Your task to perform on an android device: toggle notification dots Image 0: 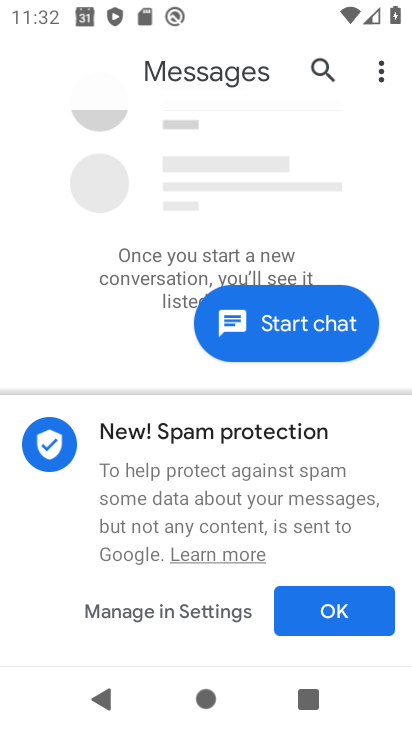
Step 0: press home button
Your task to perform on an android device: toggle notification dots Image 1: 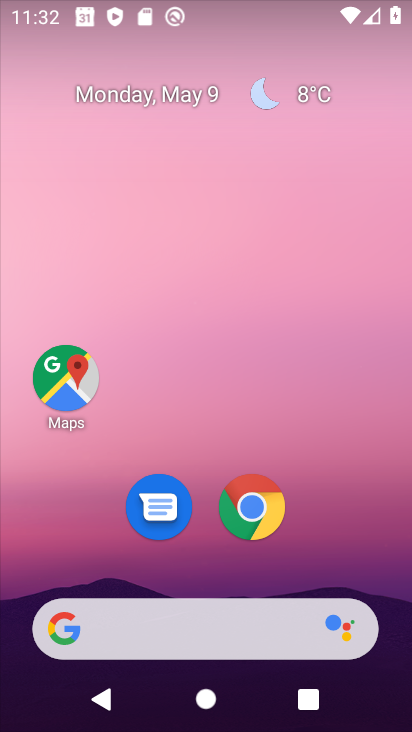
Step 1: drag from (300, 569) to (279, 53)
Your task to perform on an android device: toggle notification dots Image 2: 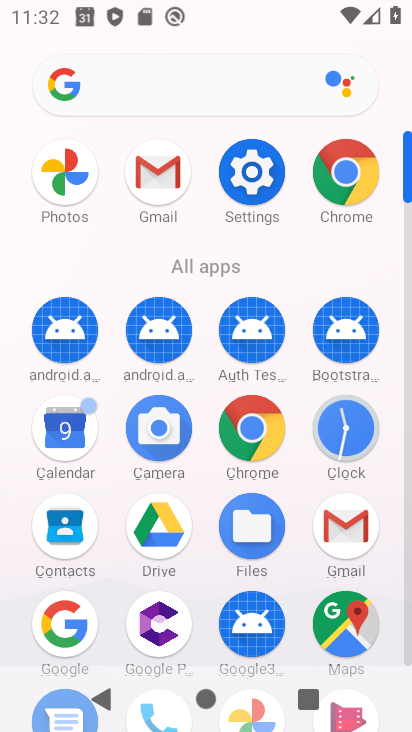
Step 2: click (250, 179)
Your task to perform on an android device: toggle notification dots Image 3: 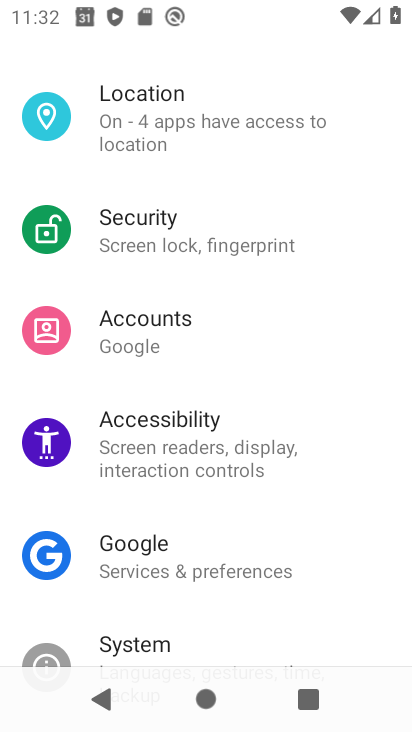
Step 3: drag from (291, 208) to (255, 573)
Your task to perform on an android device: toggle notification dots Image 4: 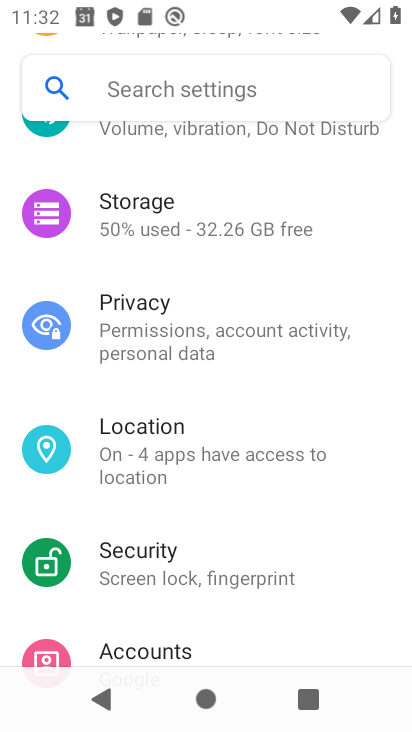
Step 4: drag from (212, 254) to (184, 578)
Your task to perform on an android device: toggle notification dots Image 5: 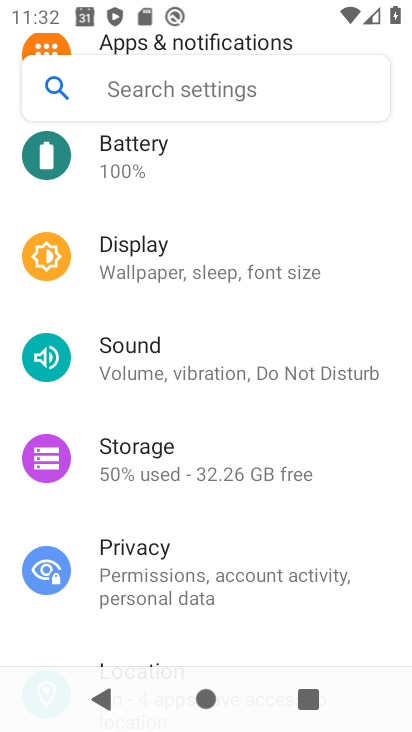
Step 5: drag from (198, 249) to (193, 509)
Your task to perform on an android device: toggle notification dots Image 6: 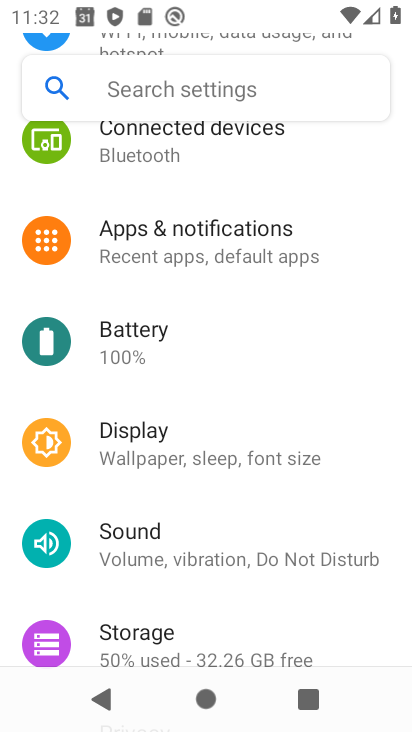
Step 6: click (156, 244)
Your task to perform on an android device: toggle notification dots Image 7: 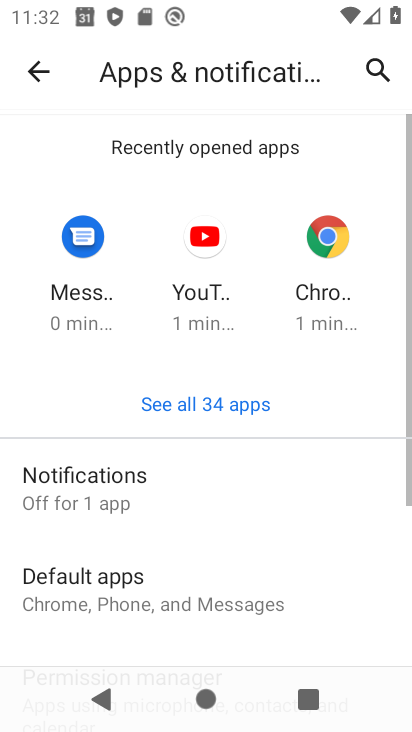
Step 7: drag from (322, 620) to (308, 321)
Your task to perform on an android device: toggle notification dots Image 8: 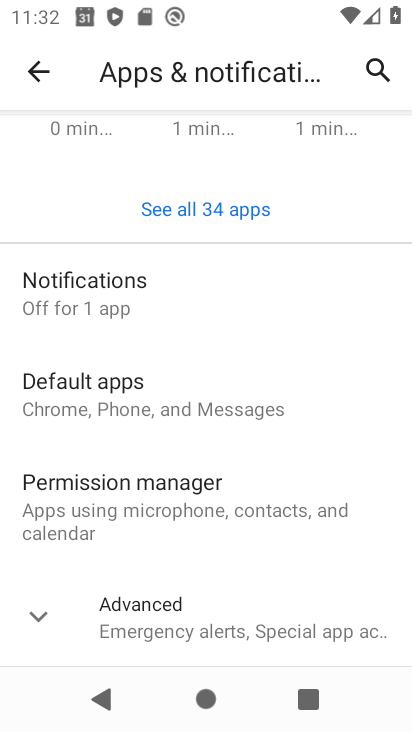
Step 8: click (98, 283)
Your task to perform on an android device: toggle notification dots Image 9: 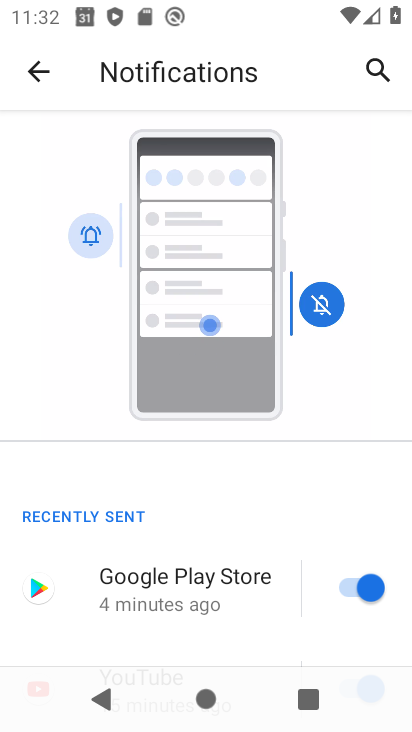
Step 9: drag from (231, 574) to (232, 231)
Your task to perform on an android device: toggle notification dots Image 10: 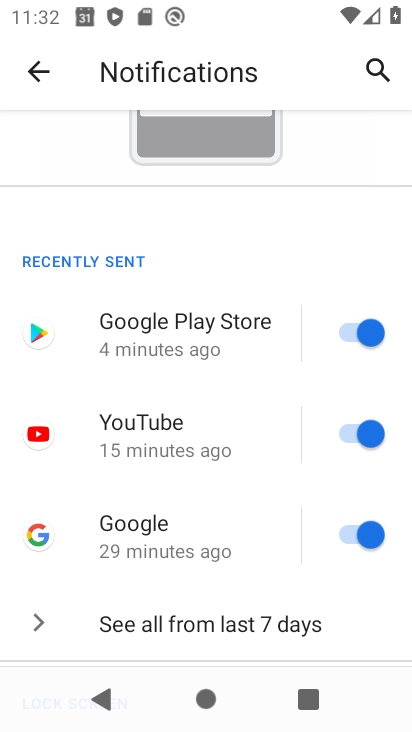
Step 10: drag from (204, 426) to (225, 187)
Your task to perform on an android device: toggle notification dots Image 11: 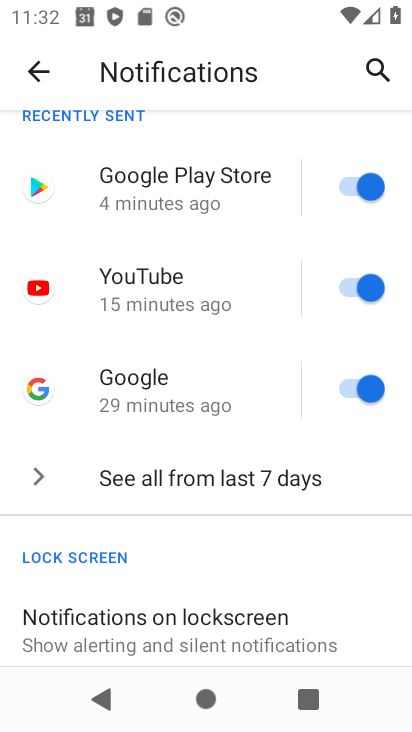
Step 11: drag from (216, 566) to (206, 251)
Your task to perform on an android device: toggle notification dots Image 12: 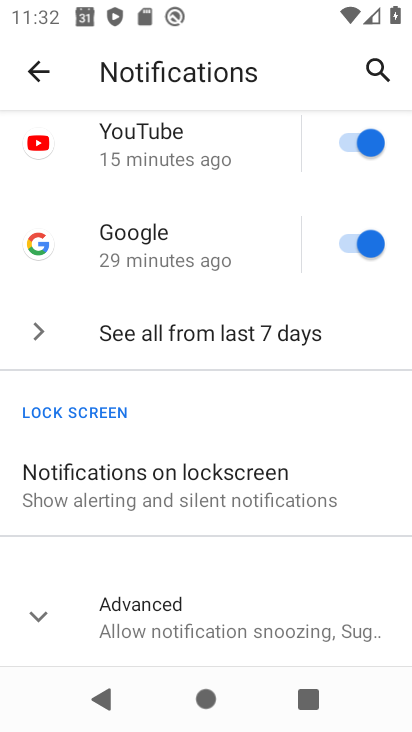
Step 12: click (180, 600)
Your task to perform on an android device: toggle notification dots Image 13: 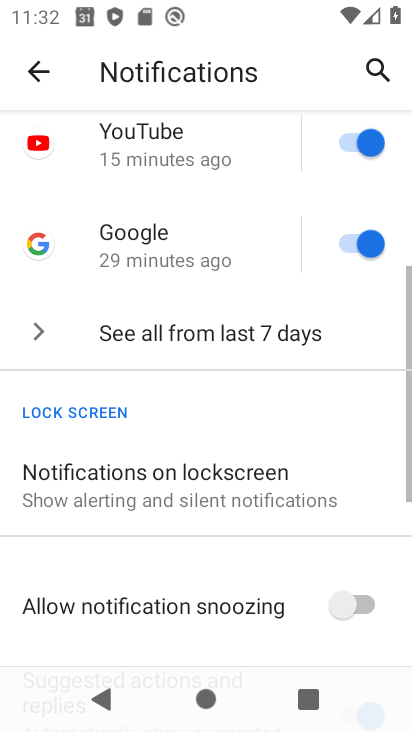
Step 13: drag from (257, 583) to (253, 276)
Your task to perform on an android device: toggle notification dots Image 14: 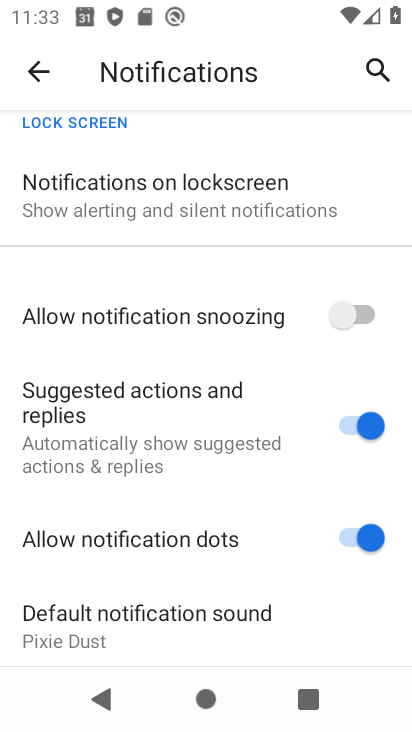
Step 14: click (344, 531)
Your task to perform on an android device: toggle notification dots Image 15: 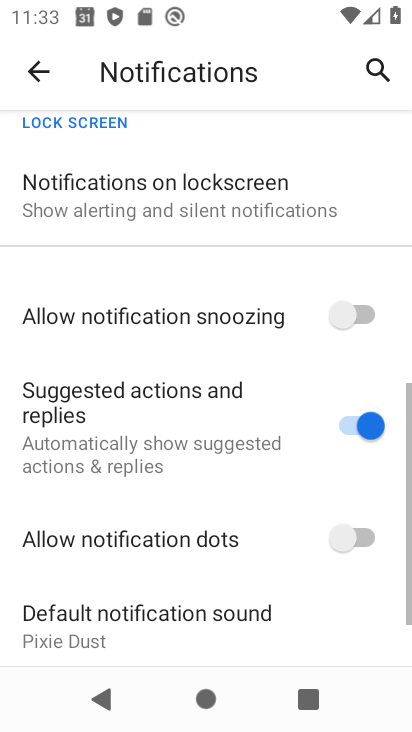
Step 15: task complete